Your task to perform on an android device: manage bookmarks in the chrome app Image 0: 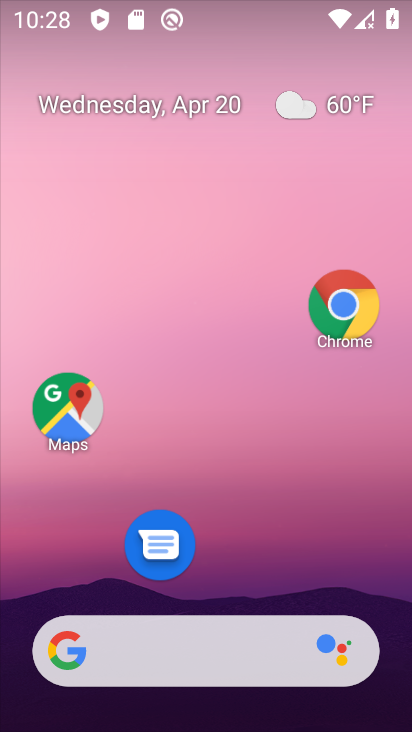
Step 0: drag from (284, 615) to (270, 239)
Your task to perform on an android device: manage bookmarks in the chrome app Image 1: 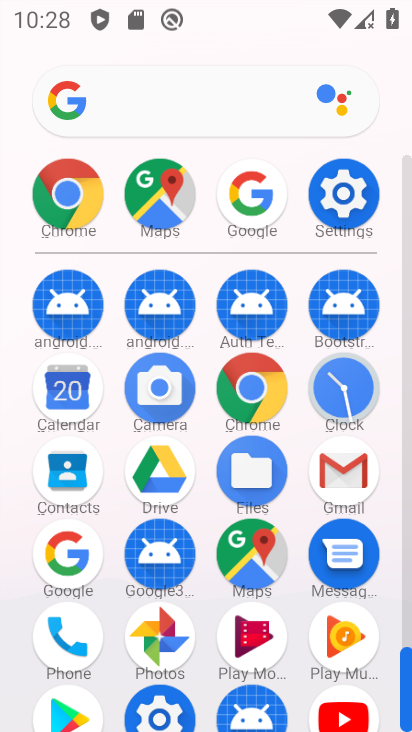
Step 1: click (249, 404)
Your task to perform on an android device: manage bookmarks in the chrome app Image 2: 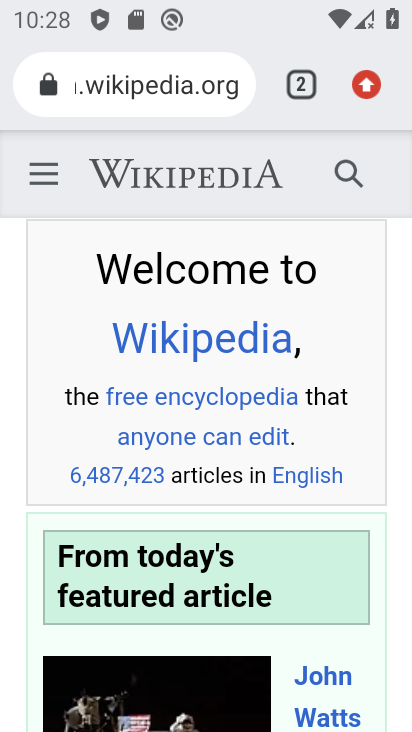
Step 2: click (379, 93)
Your task to perform on an android device: manage bookmarks in the chrome app Image 3: 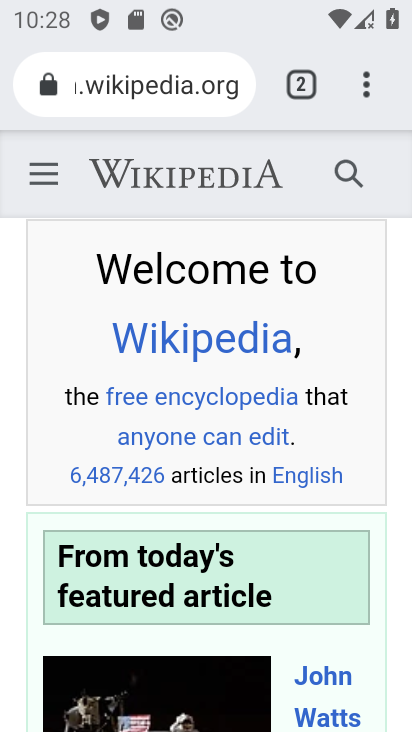
Step 3: click (375, 87)
Your task to perform on an android device: manage bookmarks in the chrome app Image 4: 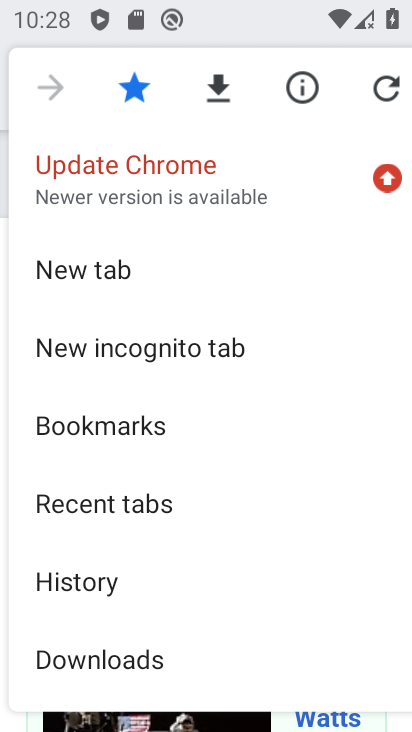
Step 4: click (141, 434)
Your task to perform on an android device: manage bookmarks in the chrome app Image 5: 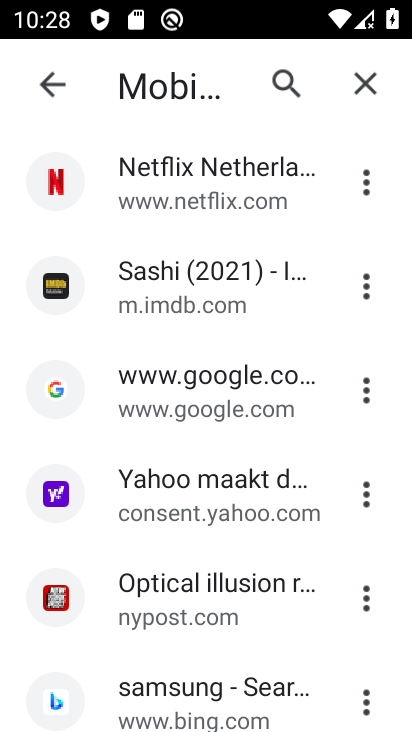
Step 5: task complete